Your task to perform on an android device: open app "PlayWell" Image 0: 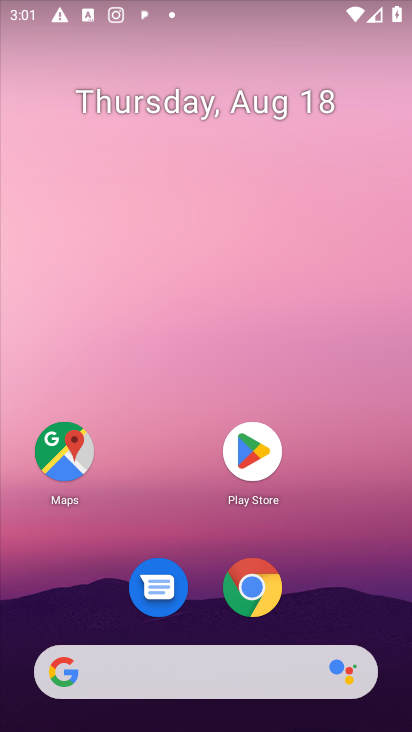
Step 0: press home button
Your task to perform on an android device: open app "PlayWell" Image 1: 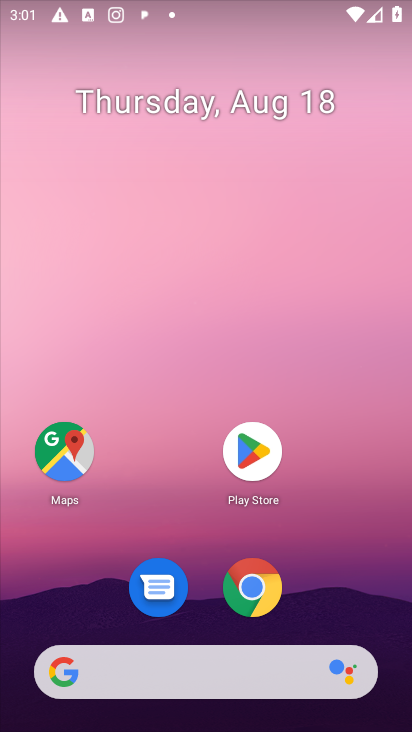
Step 1: click (254, 455)
Your task to perform on an android device: open app "PlayWell" Image 2: 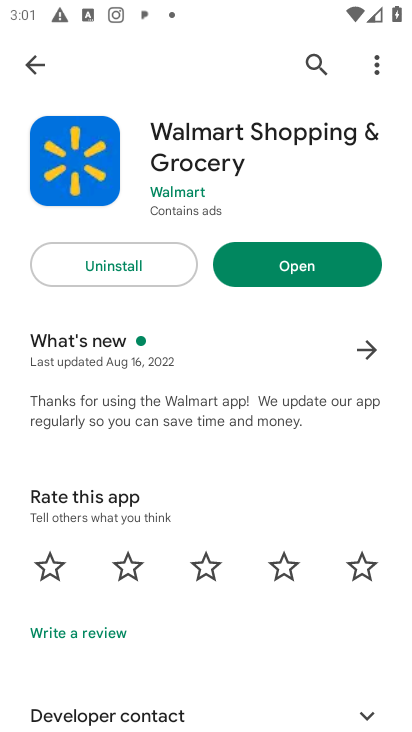
Step 2: click (312, 59)
Your task to perform on an android device: open app "PlayWell" Image 3: 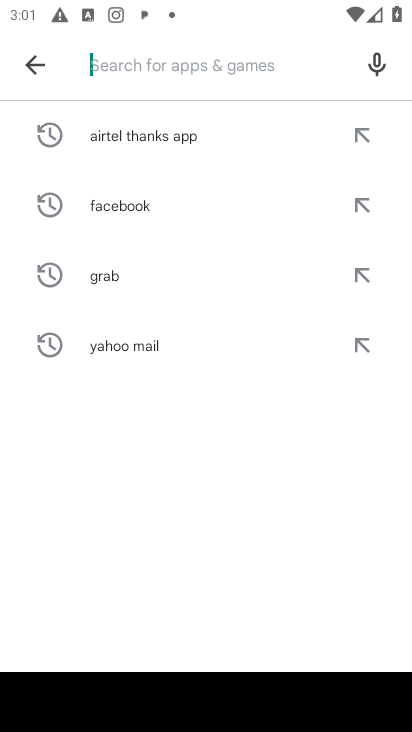
Step 3: type "PlayWell"
Your task to perform on an android device: open app "PlayWell" Image 4: 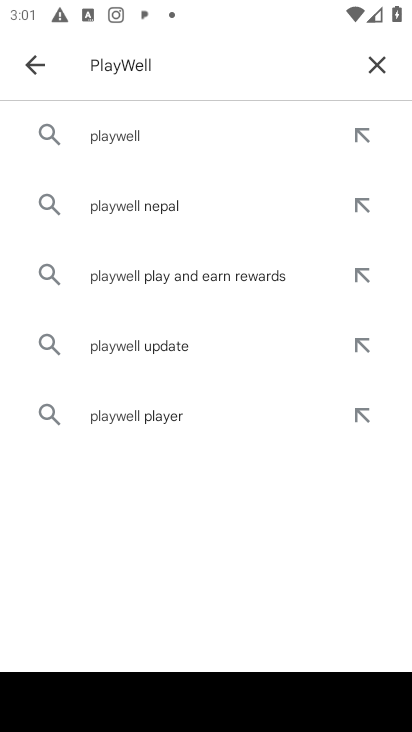
Step 4: click (121, 138)
Your task to perform on an android device: open app "PlayWell" Image 5: 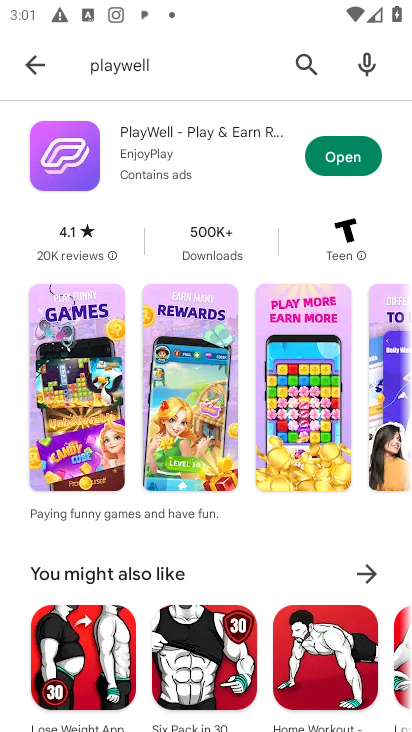
Step 5: click (348, 160)
Your task to perform on an android device: open app "PlayWell" Image 6: 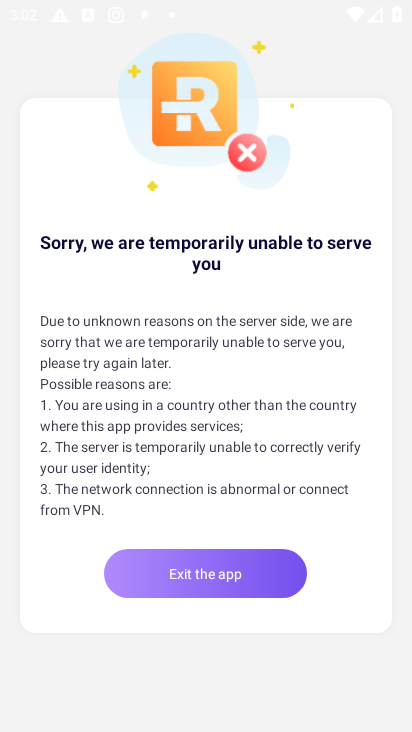
Step 6: task complete